Your task to perform on an android device: Open the map Image 0: 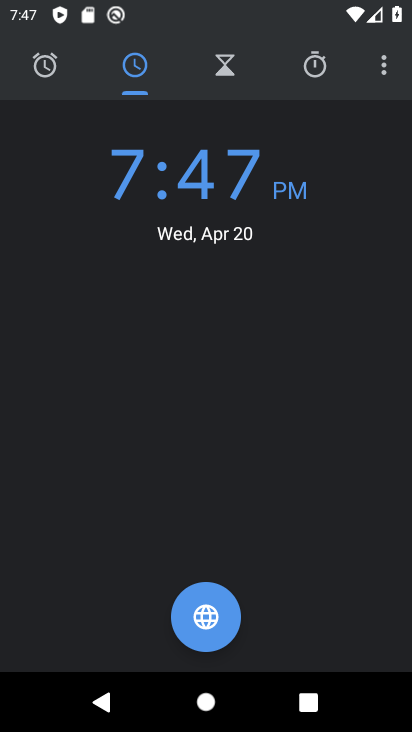
Step 0: press home button
Your task to perform on an android device: Open the map Image 1: 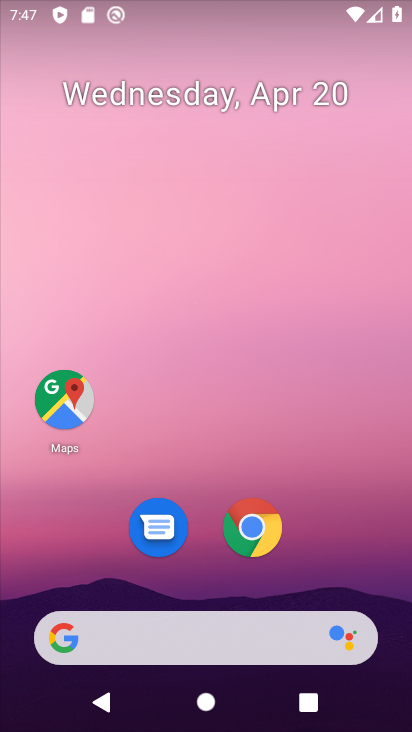
Step 1: click (59, 397)
Your task to perform on an android device: Open the map Image 2: 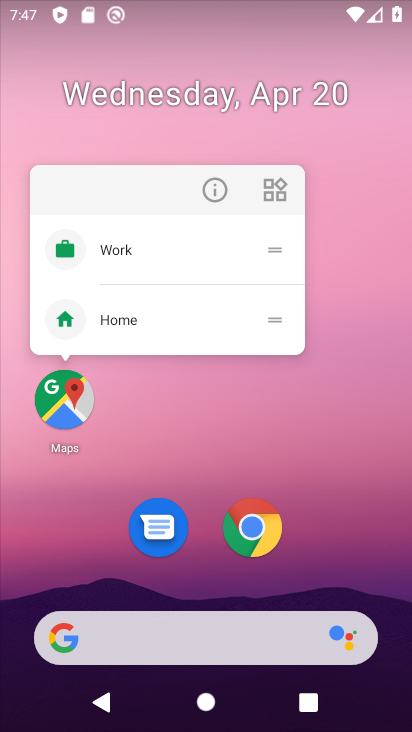
Step 2: click (63, 411)
Your task to perform on an android device: Open the map Image 3: 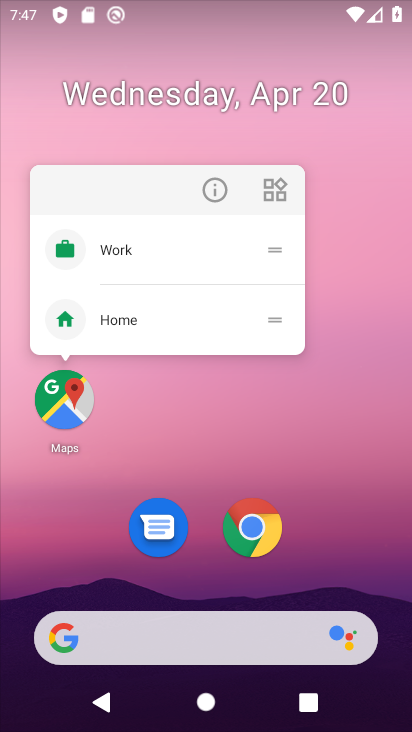
Step 3: click (63, 411)
Your task to perform on an android device: Open the map Image 4: 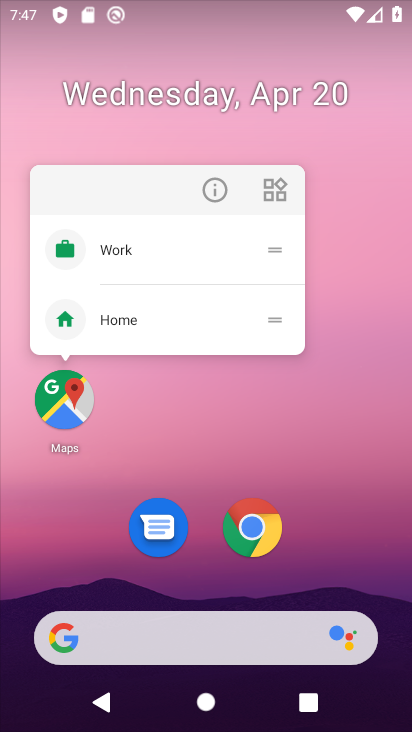
Step 4: click (60, 394)
Your task to perform on an android device: Open the map Image 5: 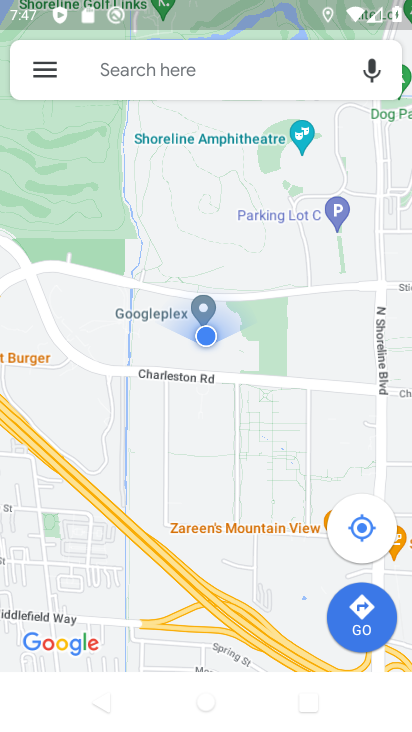
Step 5: task complete